Your task to perform on an android device: What's the weather going to be this weekend? Image 0: 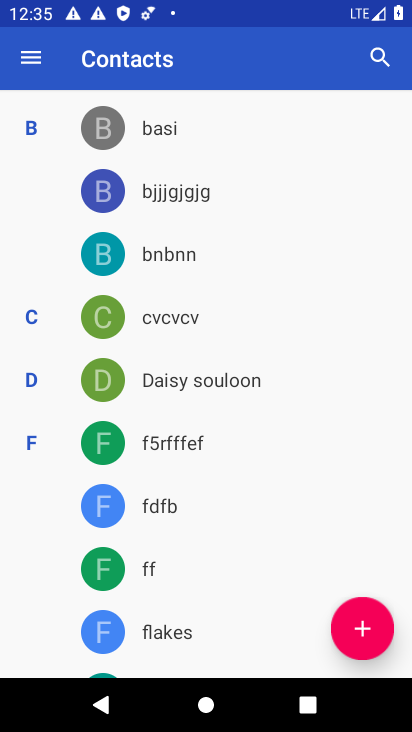
Step 0: press home button
Your task to perform on an android device: What's the weather going to be this weekend? Image 1: 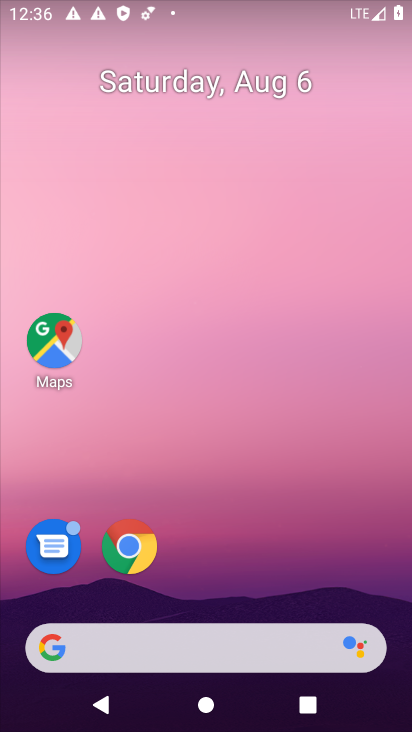
Step 1: drag from (35, 264) to (368, 279)
Your task to perform on an android device: What's the weather going to be this weekend? Image 2: 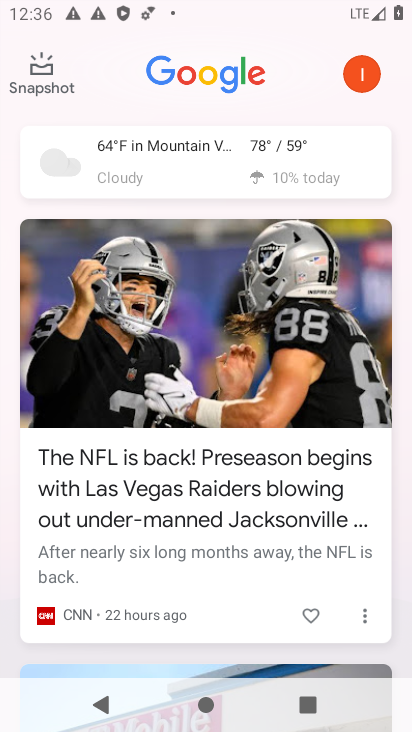
Step 2: click (267, 154)
Your task to perform on an android device: What's the weather going to be this weekend? Image 3: 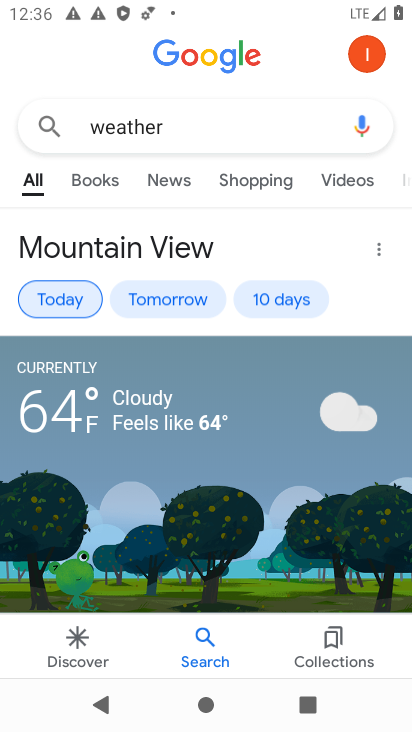
Step 3: click (279, 300)
Your task to perform on an android device: What's the weather going to be this weekend? Image 4: 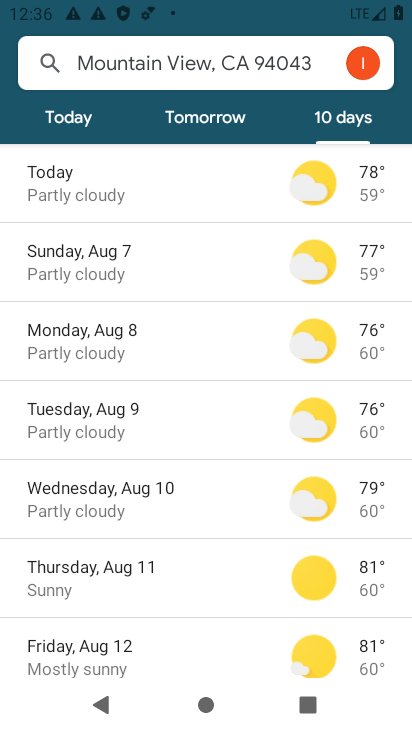
Step 4: task complete